Your task to perform on an android device: Go to eBay Image 0: 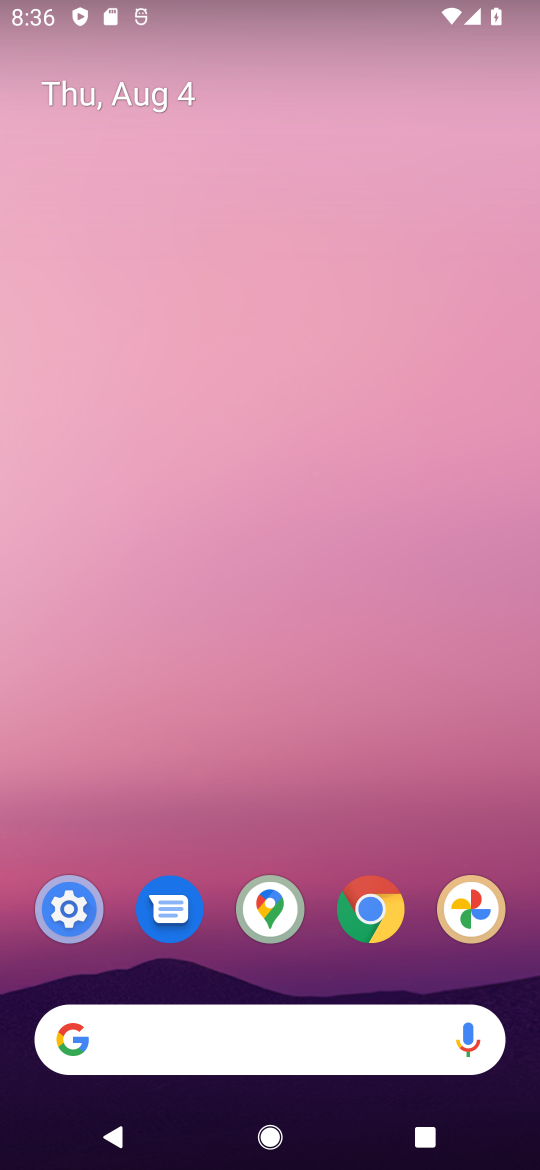
Step 0: drag from (309, 831) to (341, 246)
Your task to perform on an android device: Go to eBay Image 1: 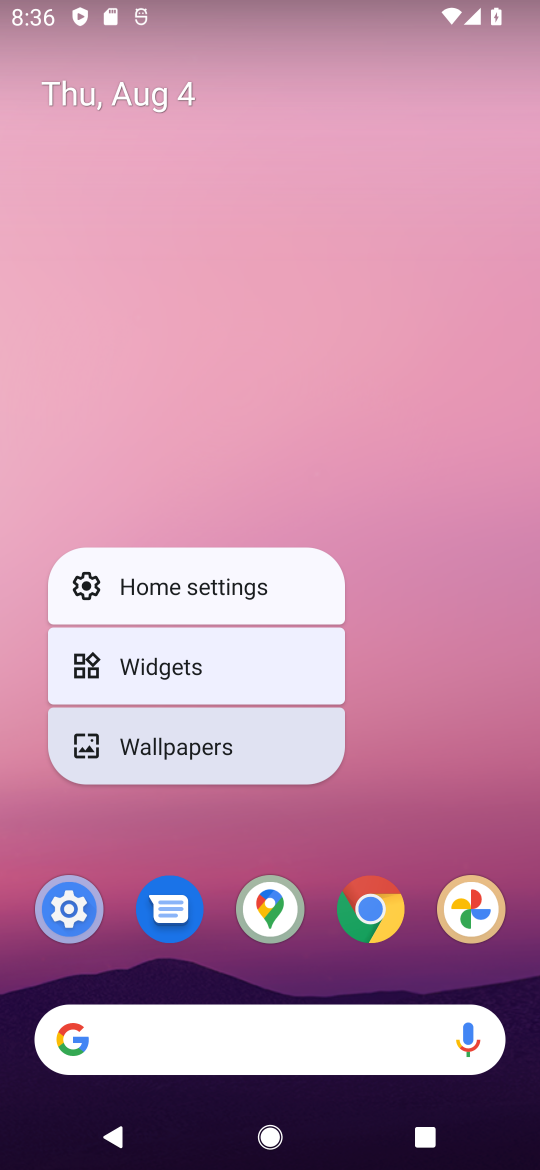
Step 1: drag from (406, 436) to (420, 289)
Your task to perform on an android device: Go to eBay Image 2: 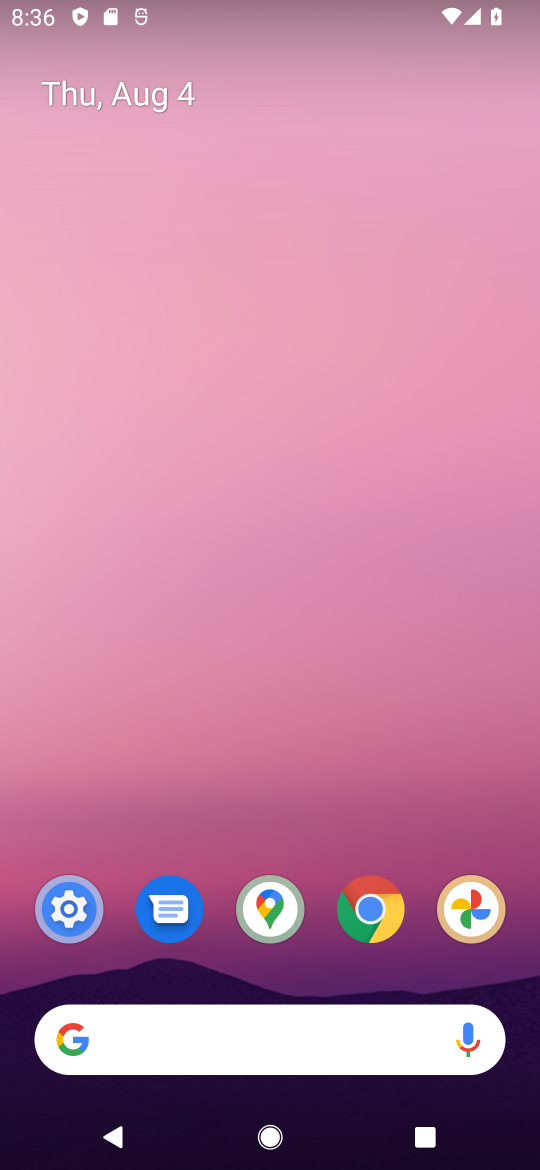
Step 2: drag from (332, 821) to (337, 211)
Your task to perform on an android device: Go to eBay Image 3: 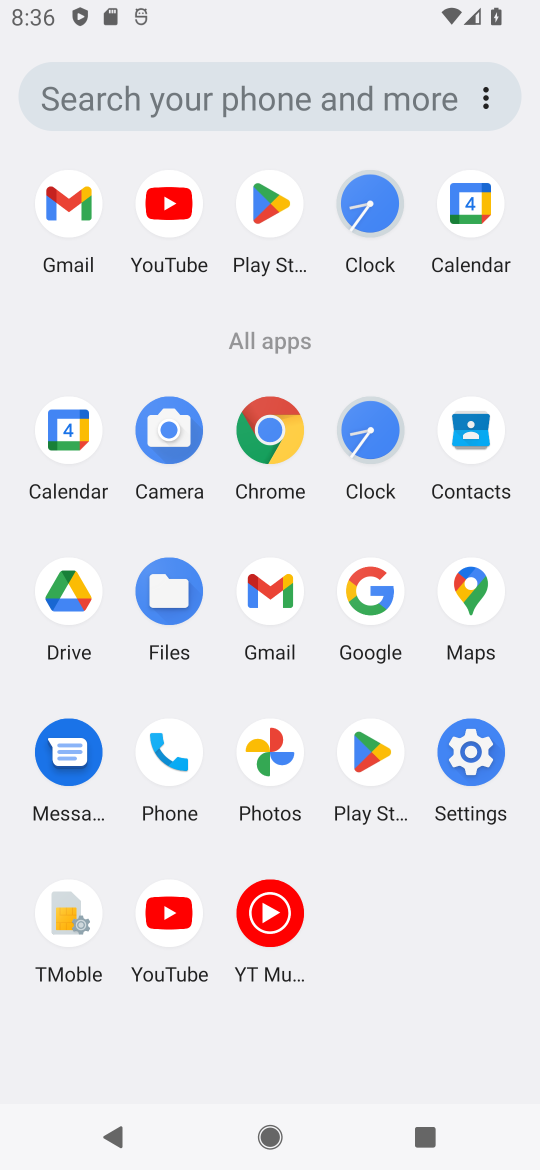
Step 3: click (267, 436)
Your task to perform on an android device: Go to eBay Image 4: 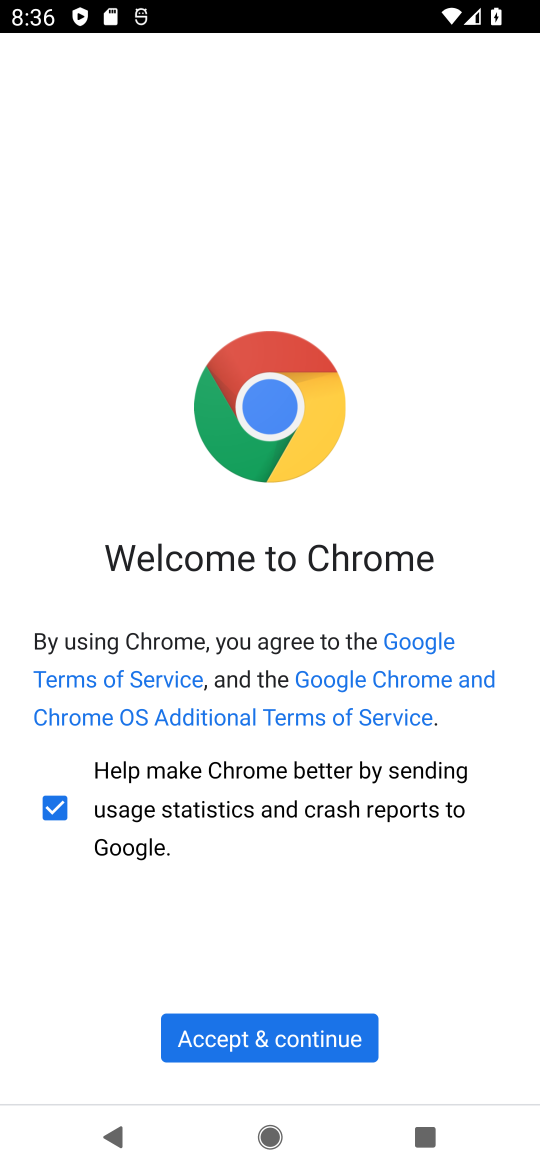
Step 4: click (250, 1037)
Your task to perform on an android device: Go to eBay Image 5: 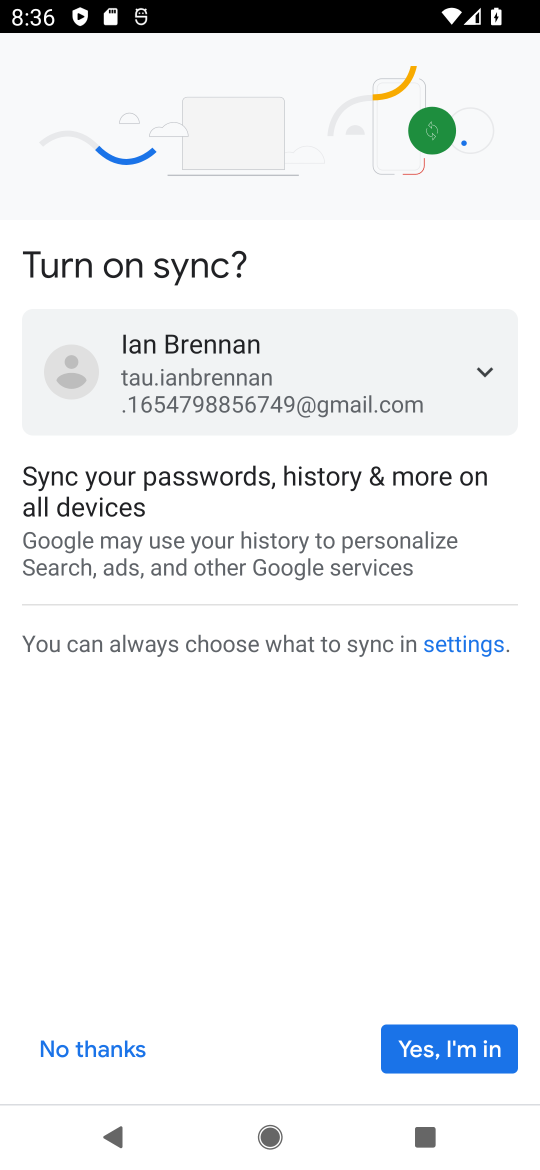
Step 5: click (443, 1048)
Your task to perform on an android device: Go to eBay Image 6: 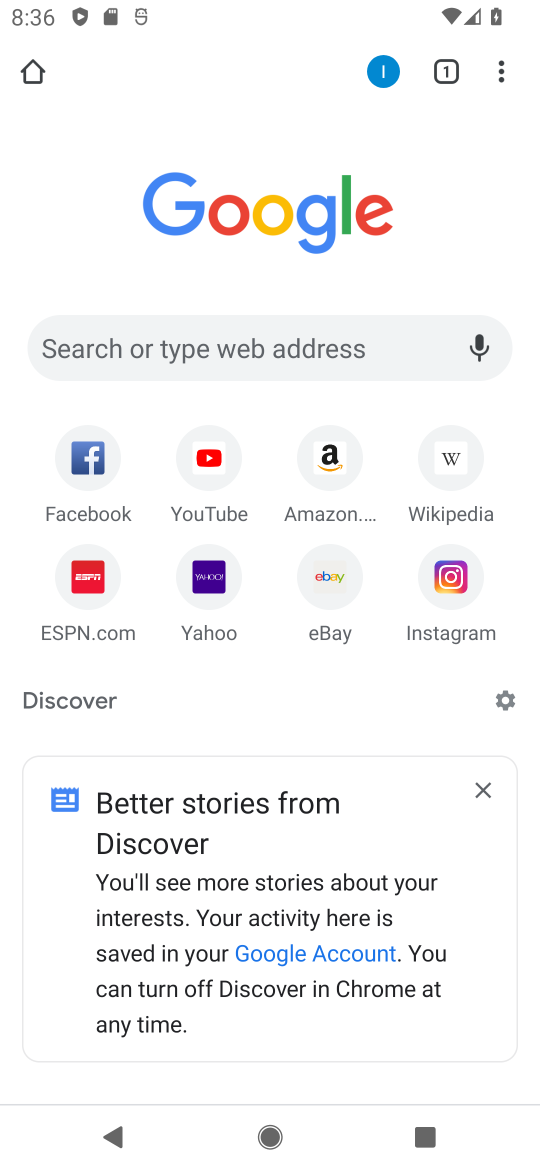
Step 6: click (374, 347)
Your task to perform on an android device: Go to eBay Image 7: 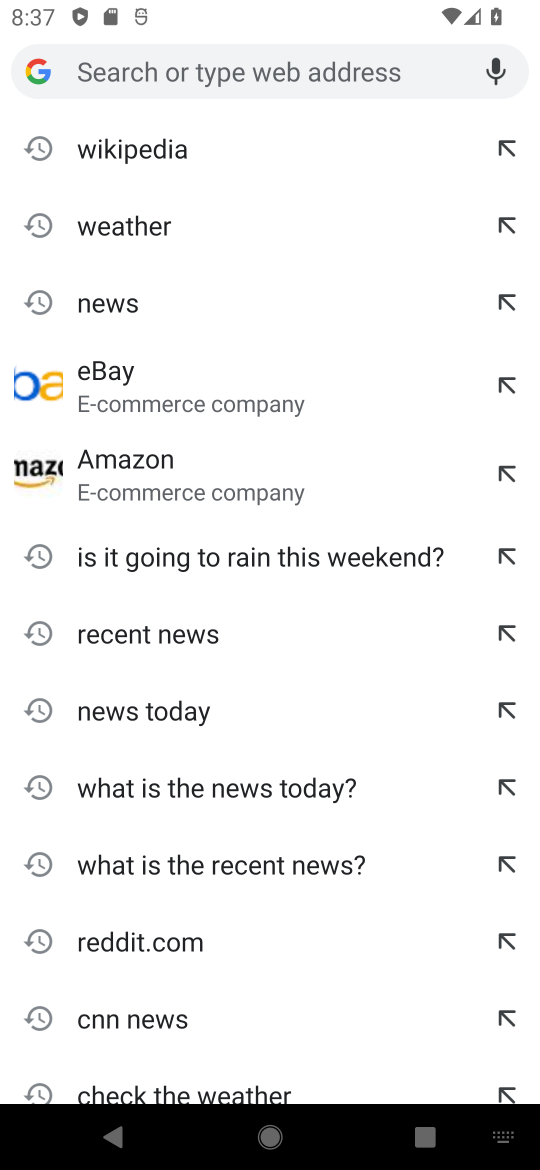
Step 7: type "ebay"
Your task to perform on an android device: Go to eBay Image 8: 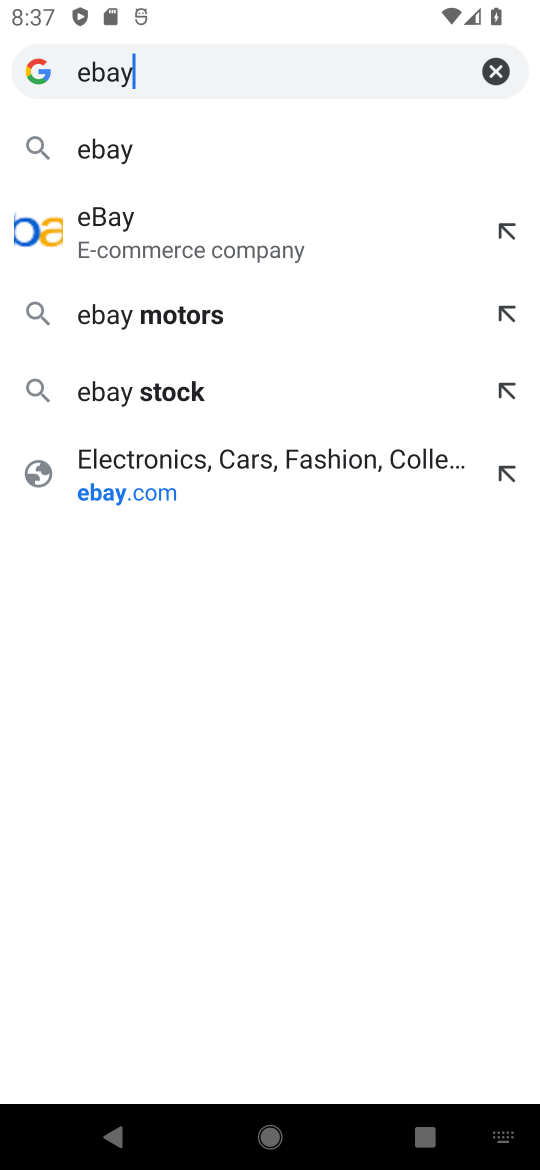
Step 8: click (229, 223)
Your task to perform on an android device: Go to eBay Image 9: 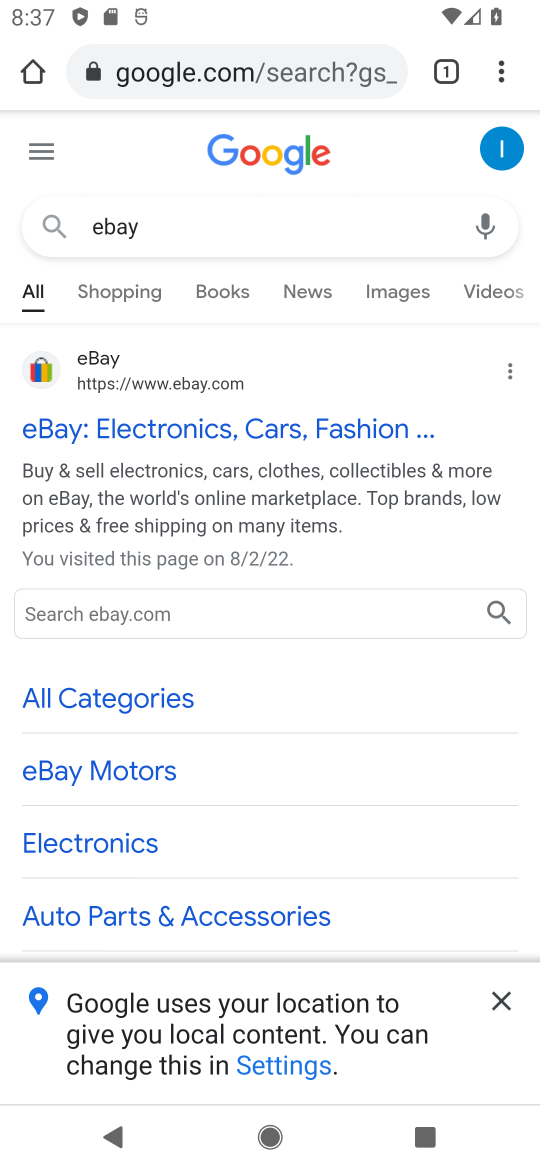
Step 9: task complete